Your task to perform on an android device: open app "Indeed Job Search" (install if not already installed) and go to login screen Image 0: 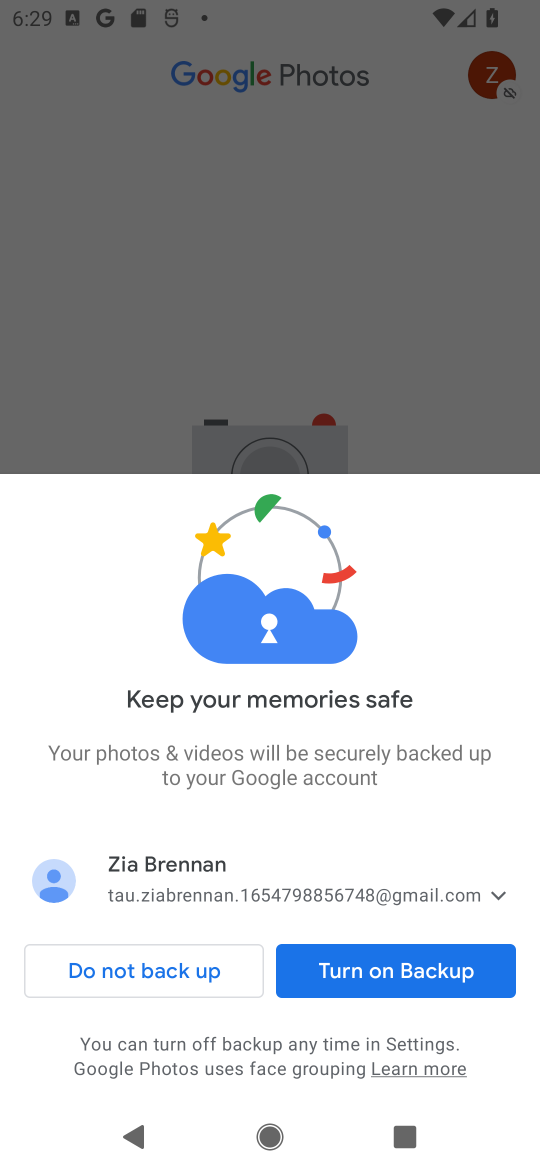
Step 0: press home button
Your task to perform on an android device: open app "Indeed Job Search" (install if not already installed) and go to login screen Image 1: 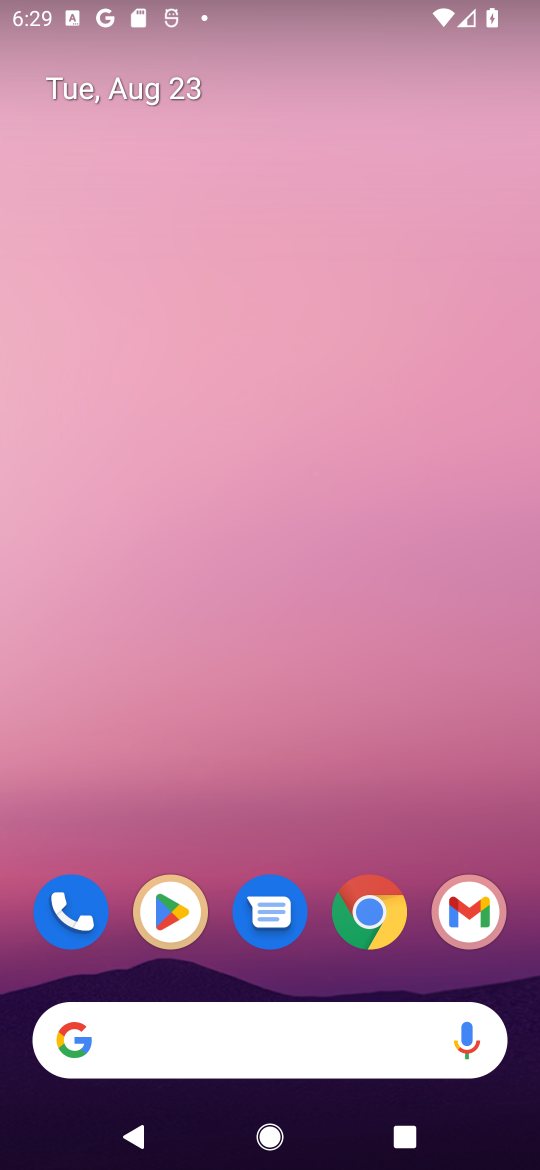
Step 1: click (183, 914)
Your task to perform on an android device: open app "Indeed Job Search" (install if not already installed) and go to login screen Image 2: 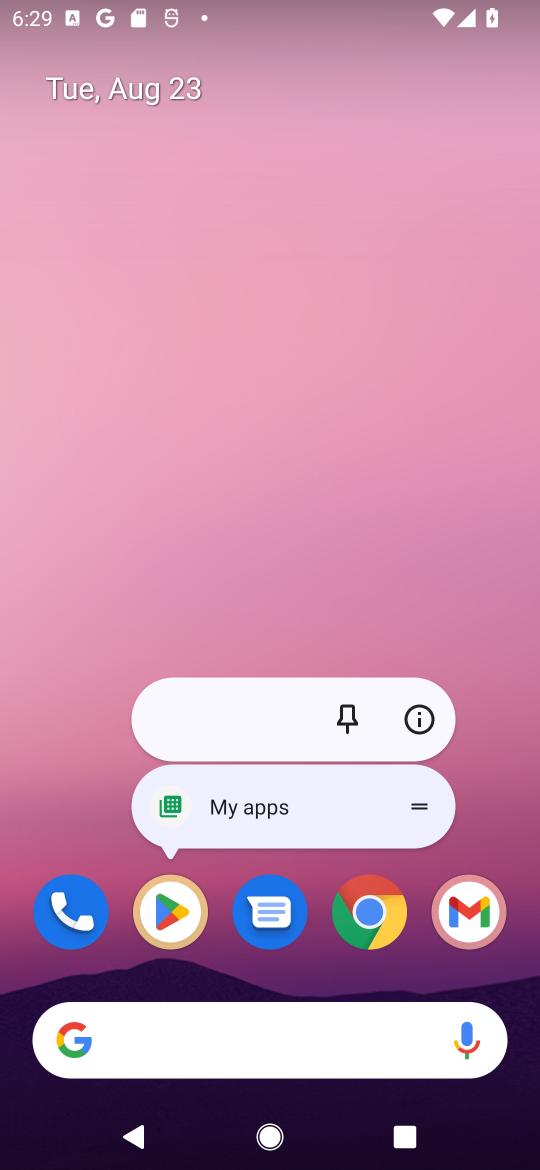
Step 2: click (143, 899)
Your task to perform on an android device: open app "Indeed Job Search" (install if not already installed) and go to login screen Image 3: 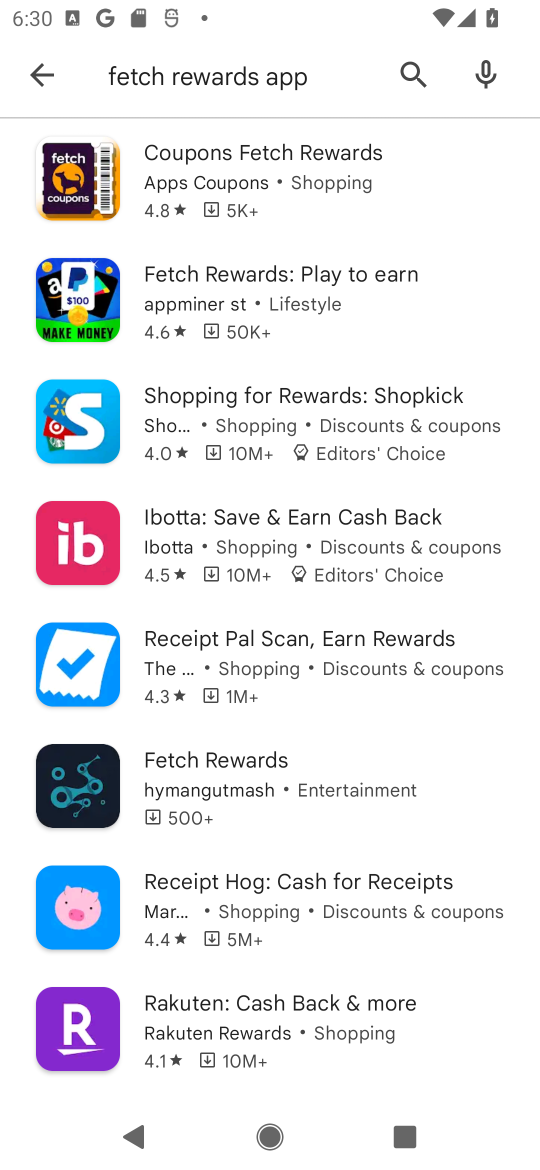
Step 3: click (53, 69)
Your task to perform on an android device: open app "Indeed Job Search" (install if not already installed) and go to login screen Image 4: 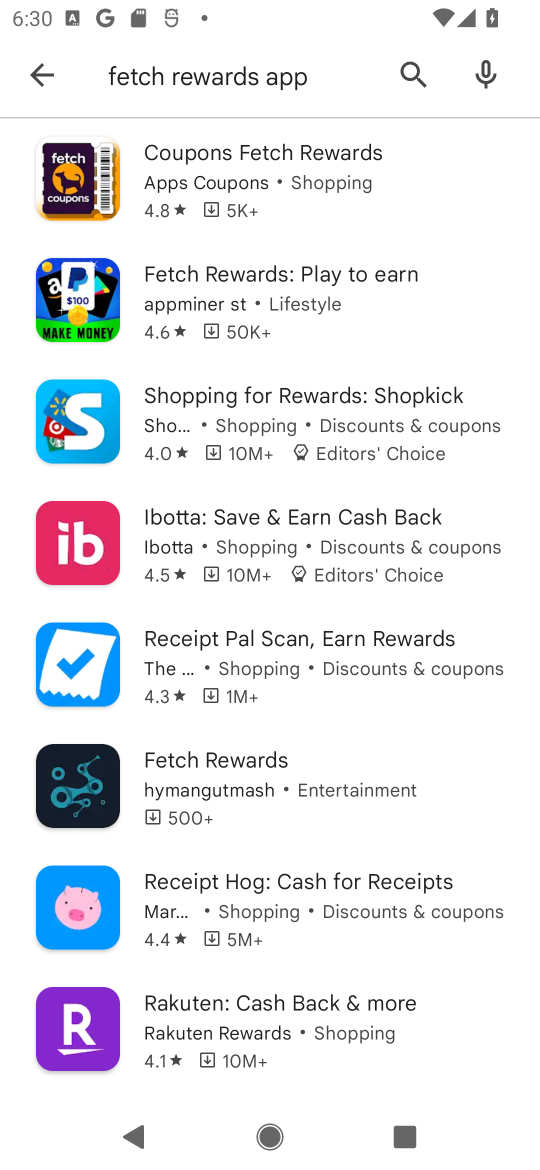
Step 4: click (56, 84)
Your task to perform on an android device: open app "Indeed Job Search" (install if not already installed) and go to login screen Image 5: 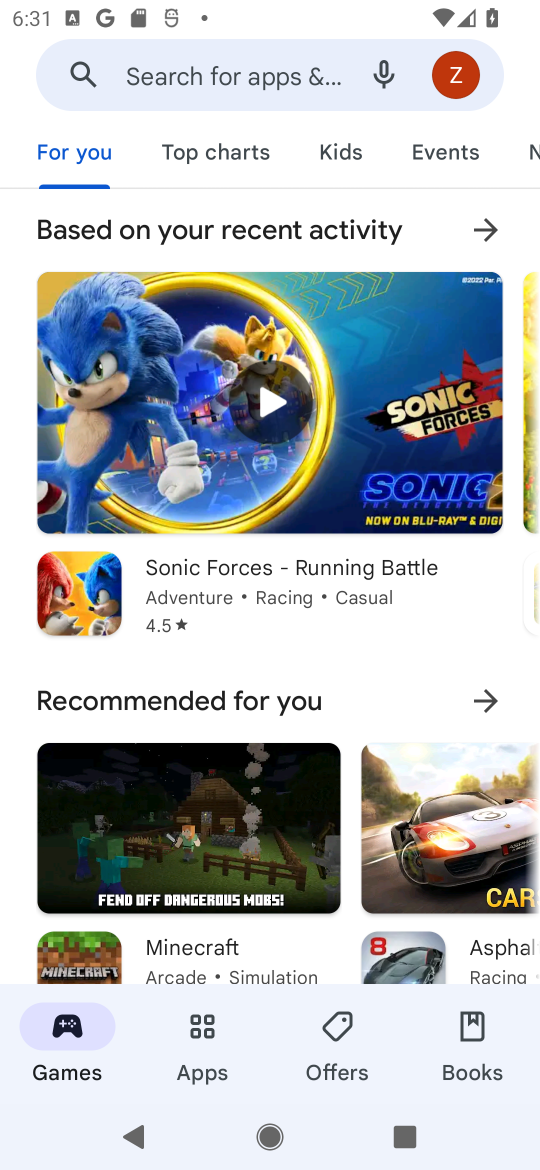
Step 5: click (207, 66)
Your task to perform on an android device: open app "Indeed Job Search" (install if not already installed) and go to login screen Image 6: 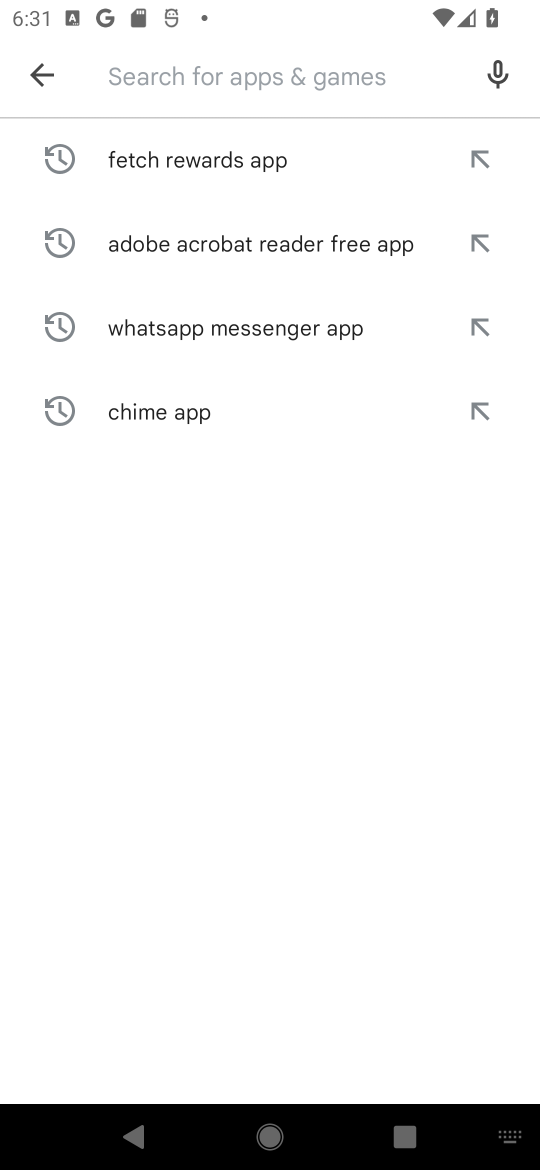
Step 6: type "Indeed Job Search "
Your task to perform on an android device: open app "Indeed Job Search" (install if not already installed) and go to login screen Image 7: 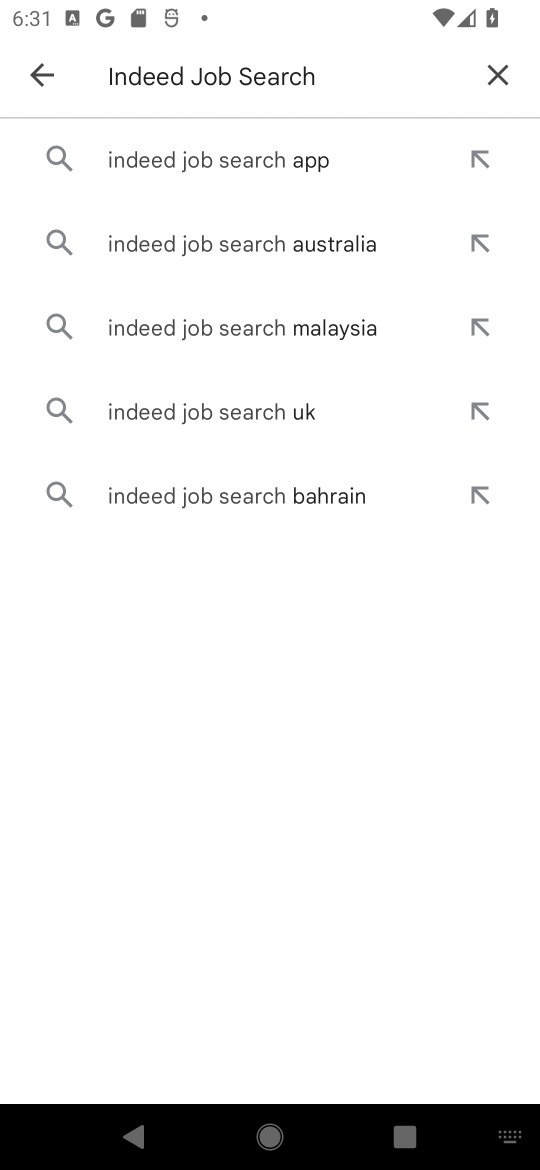
Step 7: click (240, 144)
Your task to perform on an android device: open app "Indeed Job Search" (install if not already installed) and go to login screen Image 8: 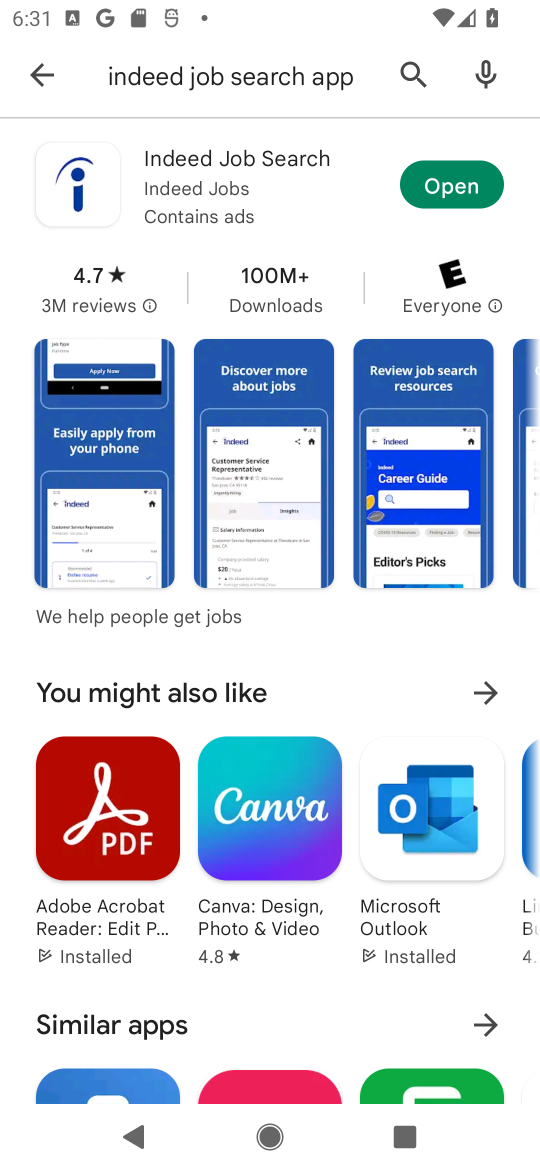
Step 8: click (422, 174)
Your task to perform on an android device: open app "Indeed Job Search" (install if not already installed) and go to login screen Image 9: 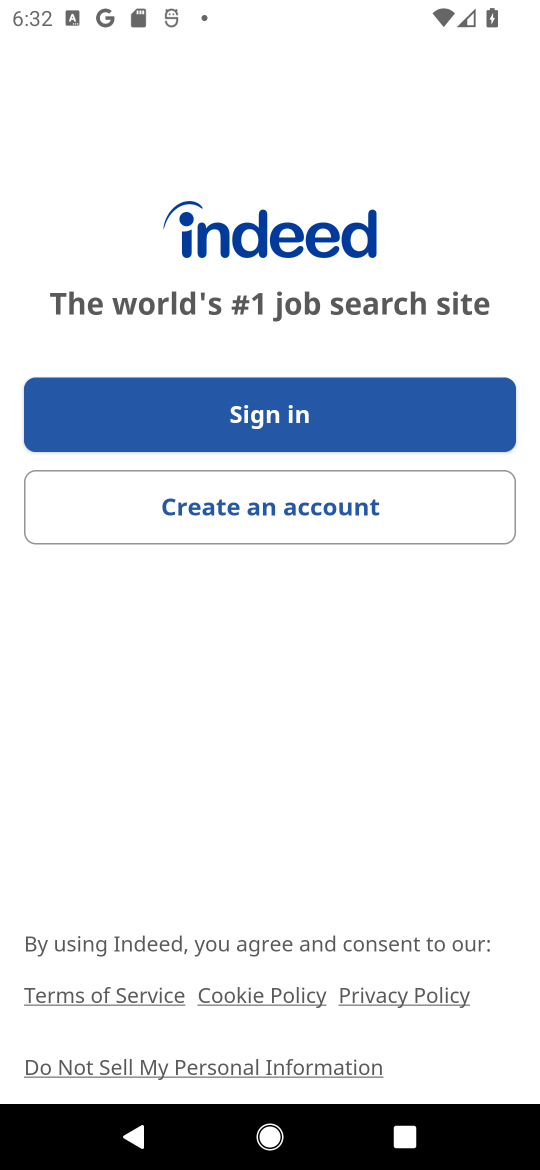
Step 9: task complete